Your task to perform on an android device: add a contact in the contacts app Image 0: 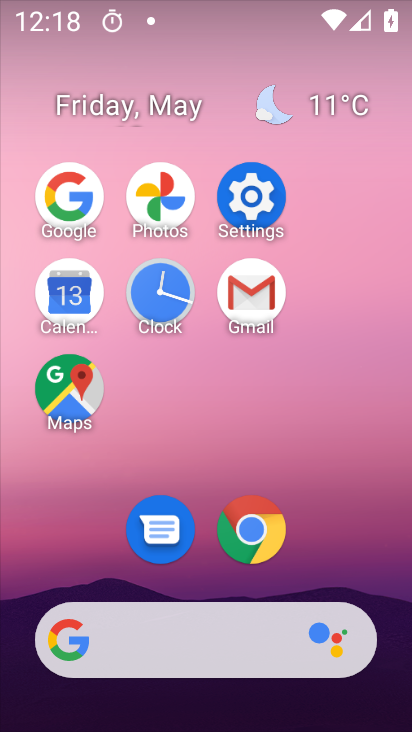
Step 0: drag from (333, 349) to (307, 71)
Your task to perform on an android device: add a contact in the contacts app Image 1: 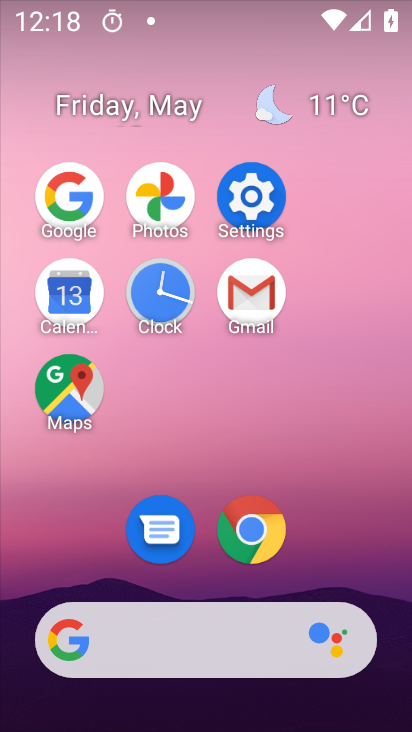
Step 1: drag from (294, 561) to (325, 83)
Your task to perform on an android device: add a contact in the contacts app Image 2: 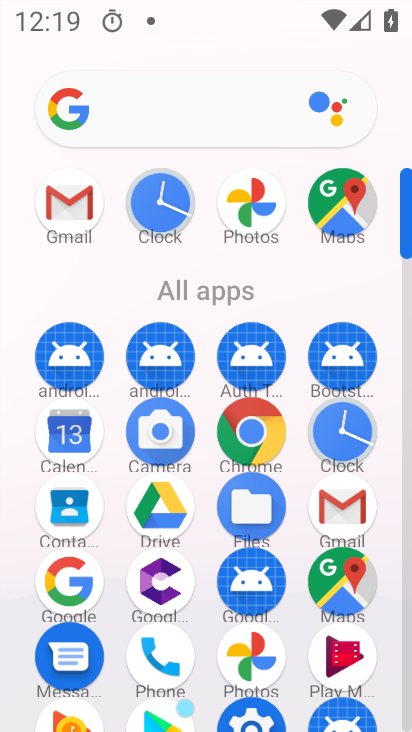
Step 2: click (83, 520)
Your task to perform on an android device: add a contact in the contacts app Image 3: 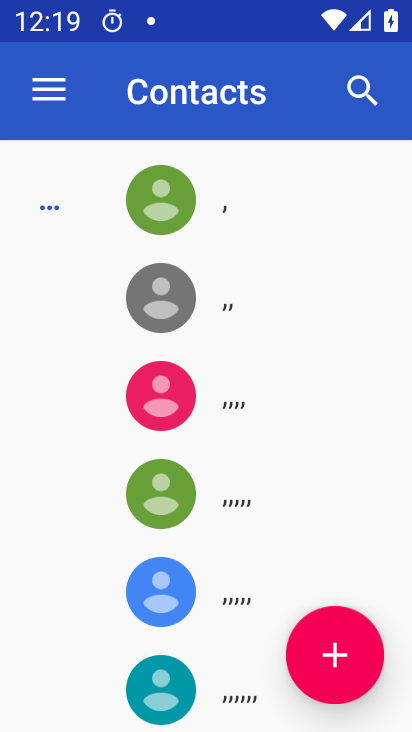
Step 3: click (347, 655)
Your task to perform on an android device: add a contact in the contacts app Image 4: 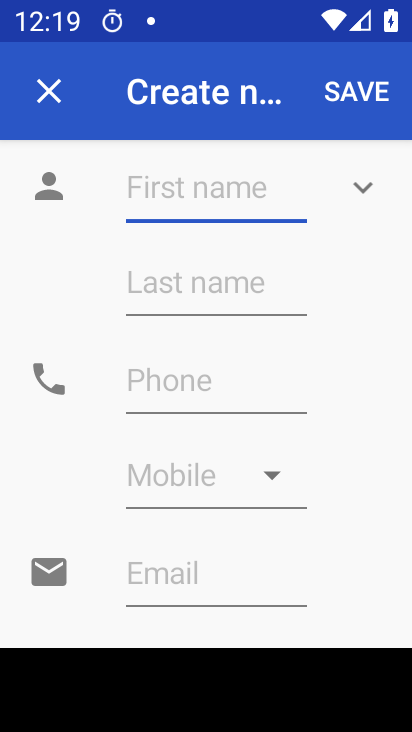
Step 4: type "22 shops"
Your task to perform on an android device: add a contact in the contacts app Image 5: 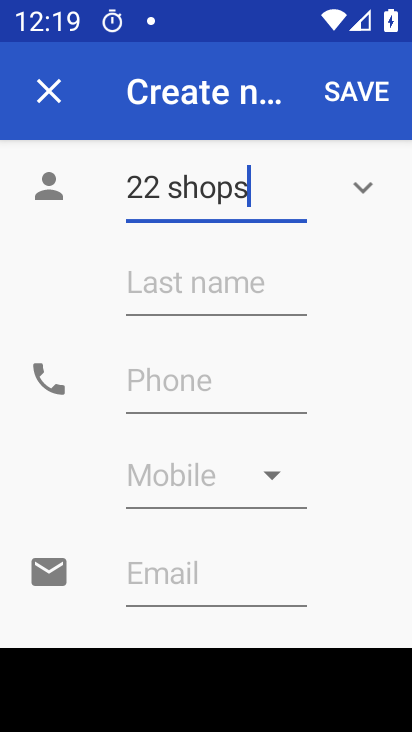
Step 5: click (243, 383)
Your task to perform on an android device: add a contact in the contacts app Image 6: 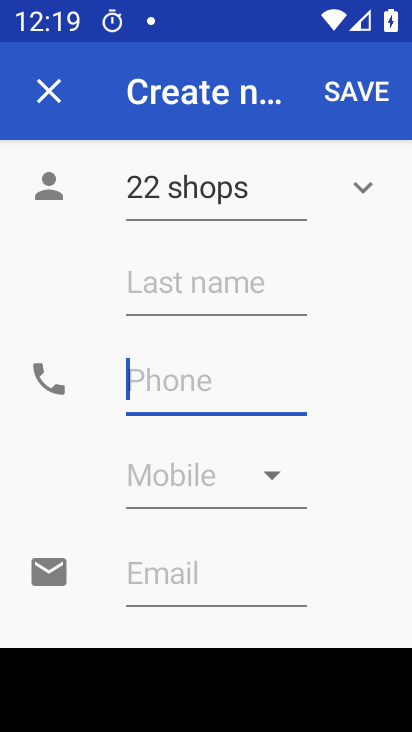
Step 6: type "8876599089"
Your task to perform on an android device: add a contact in the contacts app Image 7: 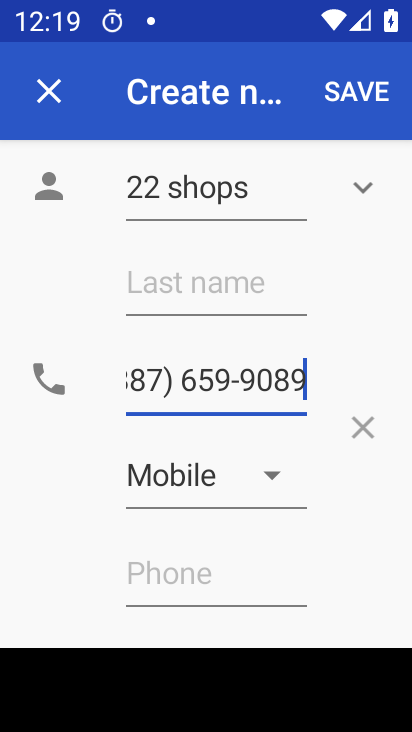
Step 7: click (373, 108)
Your task to perform on an android device: add a contact in the contacts app Image 8: 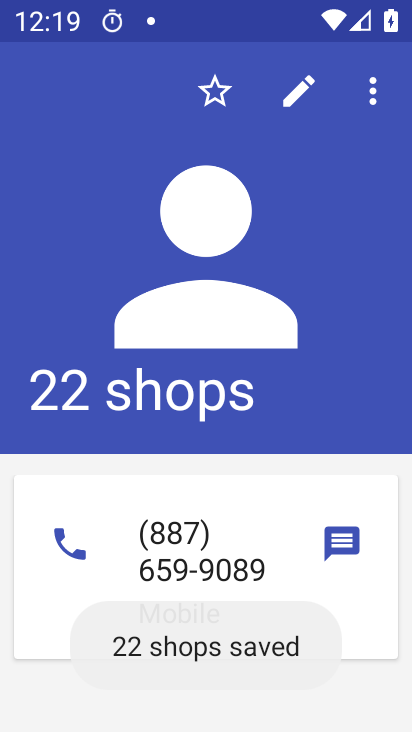
Step 8: task complete